Your task to perform on an android device: Is it going to rain today? Image 0: 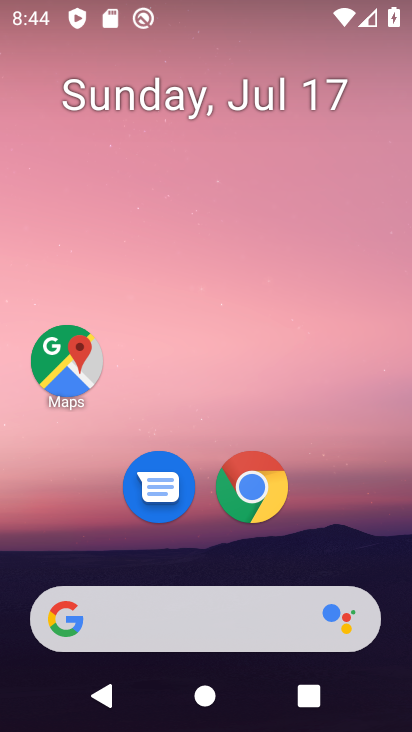
Step 0: click (65, 616)
Your task to perform on an android device: Is it going to rain today? Image 1: 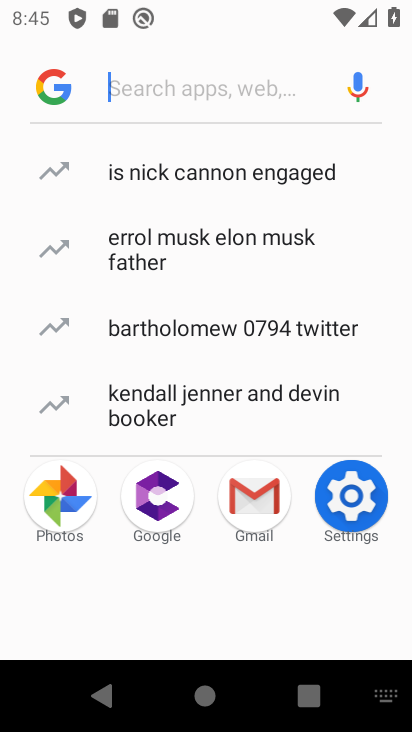
Step 1: click (128, 618)
Your task to perform on an android device: Is it going to rain today? Image 2: 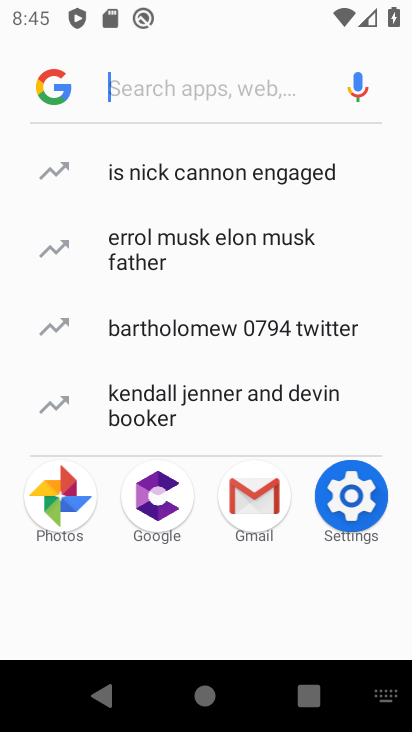
Step 2: type "Is it going to rain today?"
Your task to perform on an android device: Is it going to rain today? Image 3: 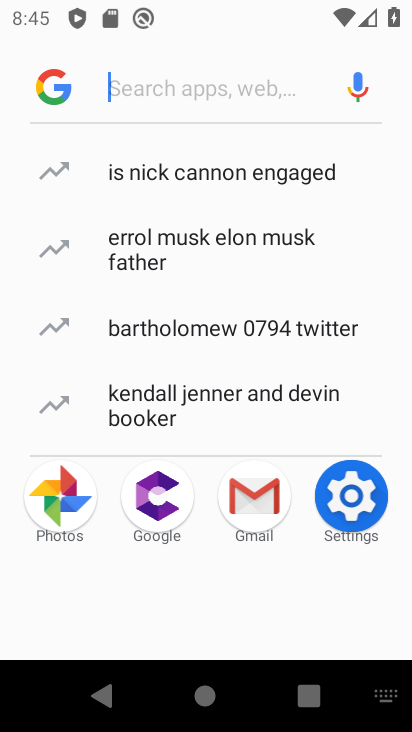
Step 3: click (150, 71)
Your task to perform on an android device: Is it going to rain today? Image 4: 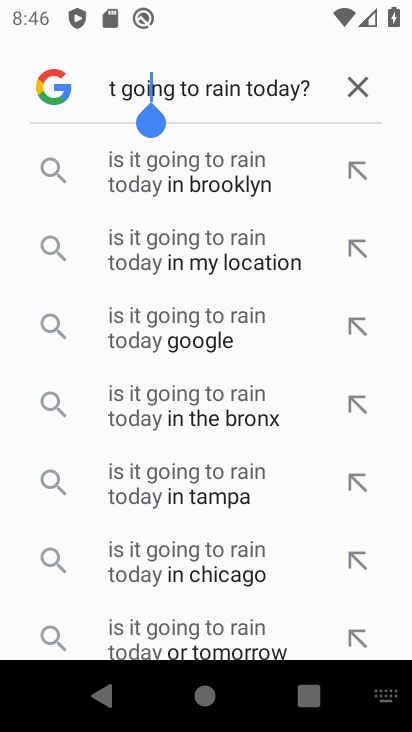
Step 4: press enter
Your task to perform on an android device: Is it going to rain today? Image 5: 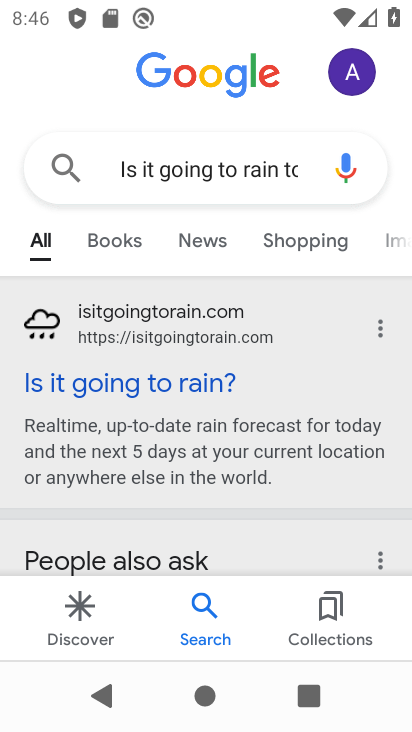
Step 5: task complete